Your task to perform on an android device: Open Google Maps and go to "Timeline" Image 0: 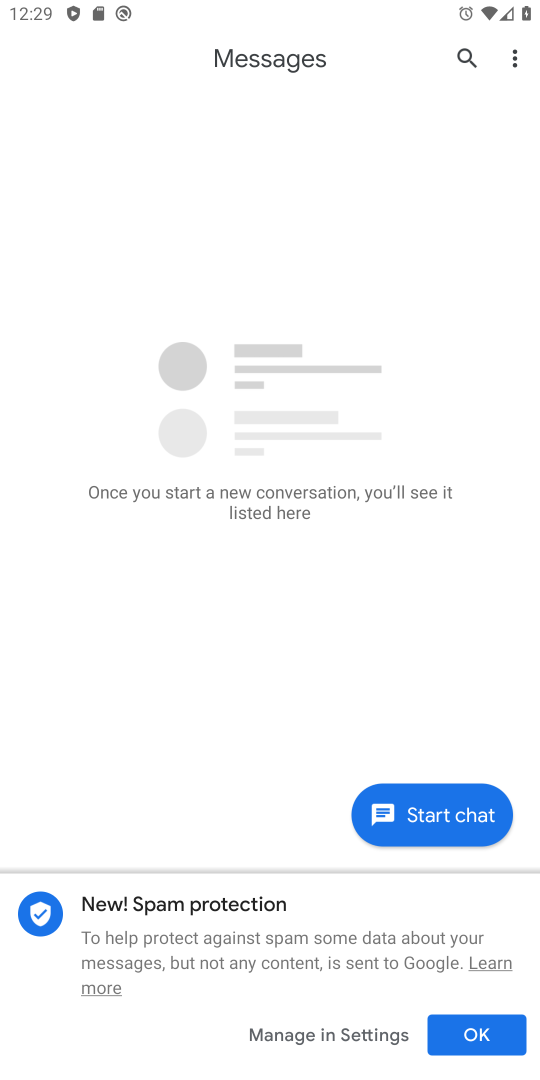
Step 0: press home button
Your task to perform on an android device: Open Google Maps and go to "Timeline" Image 1: 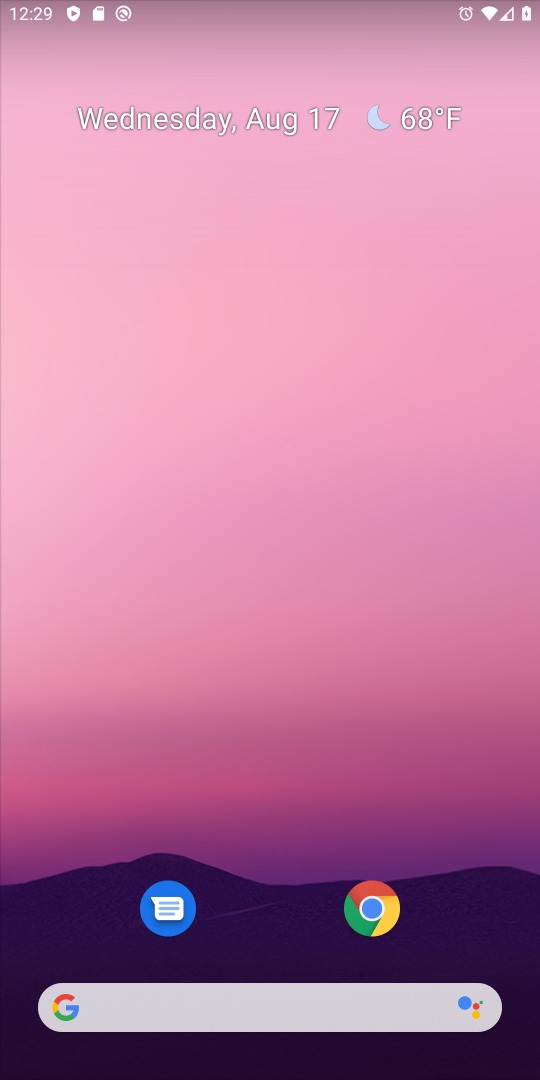
Step 1: drag from (249, 915) to (221, 348)
Your task to perform on an android device: Open Google Maps and go to "Timeline" Image 2: 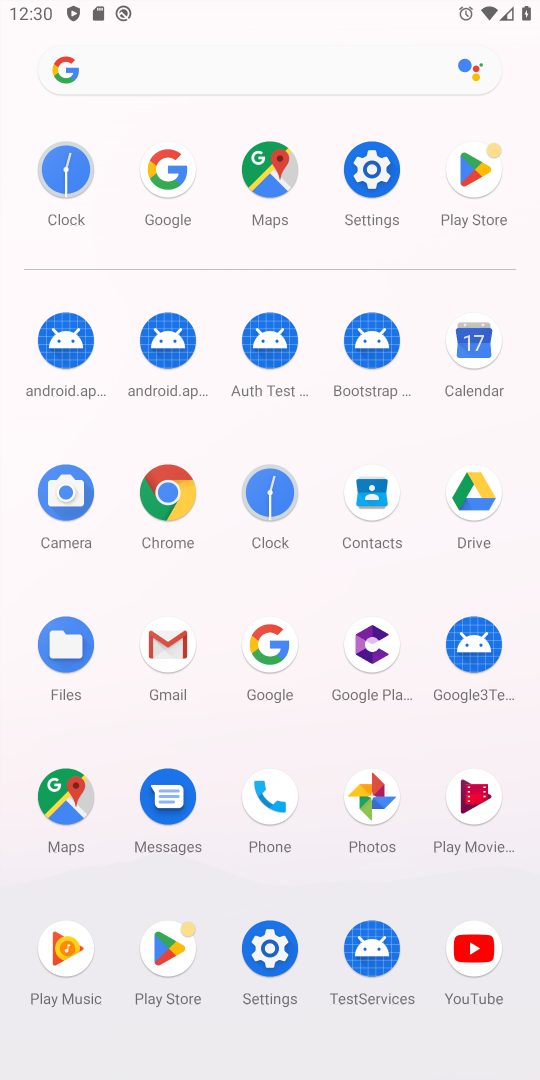
Step 2: click (255, 178)
Your task to perform on an android device: Open Google Maps and go to "Timeline" Image 3: 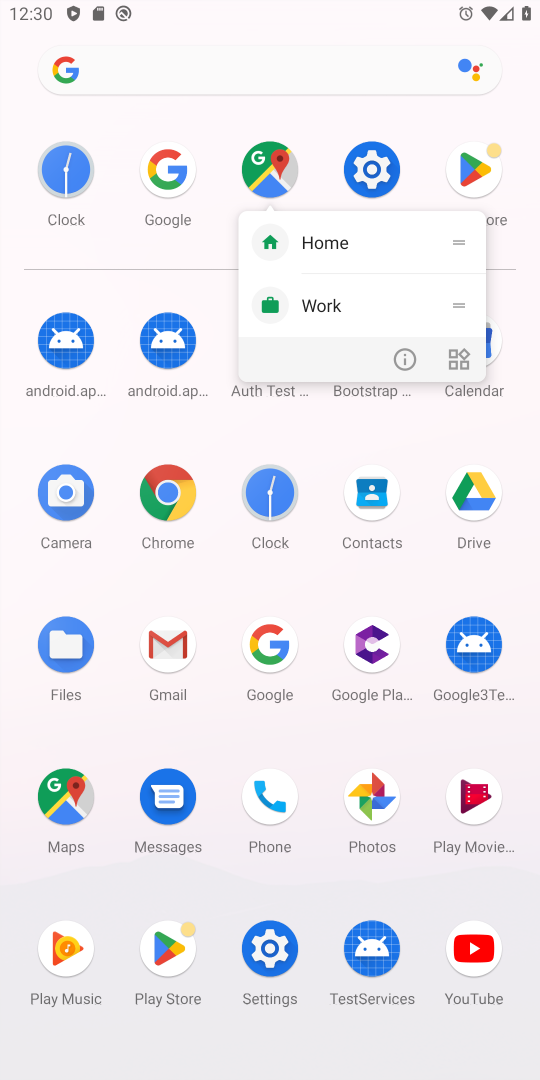
Step 3: click (264, 158)
Your task to perform on an android device: Open Google Maps and go to "Timeline" Image 4: 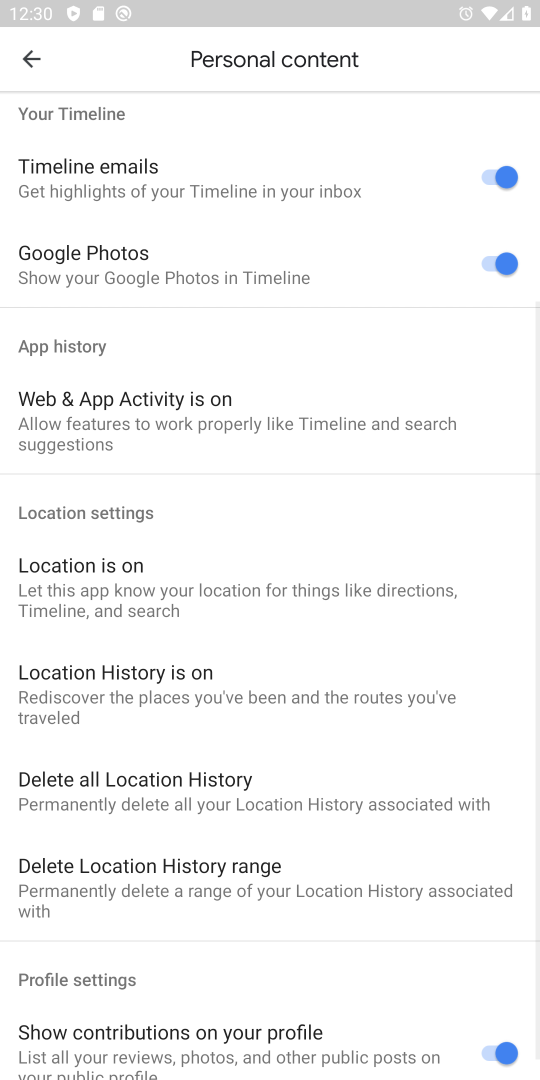
Step 4: click (24, 64)
Your task to perform on an android device: Open Google Maps and go to "Timeline" Image 5: 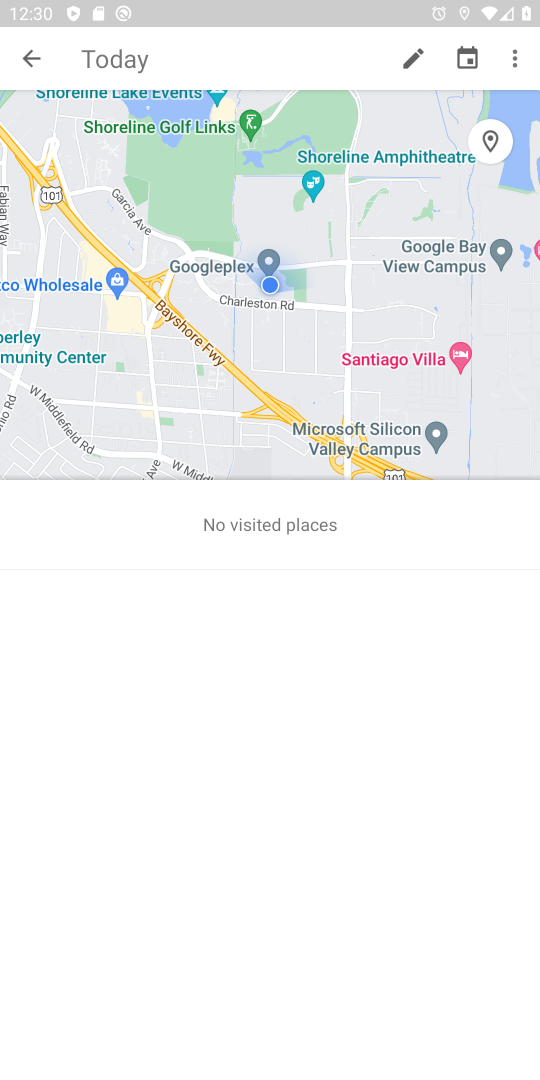
Step 5: click (14, 53)
Your task to perform on an android device: Open Google Maps and go to "Timeline" Image 6: 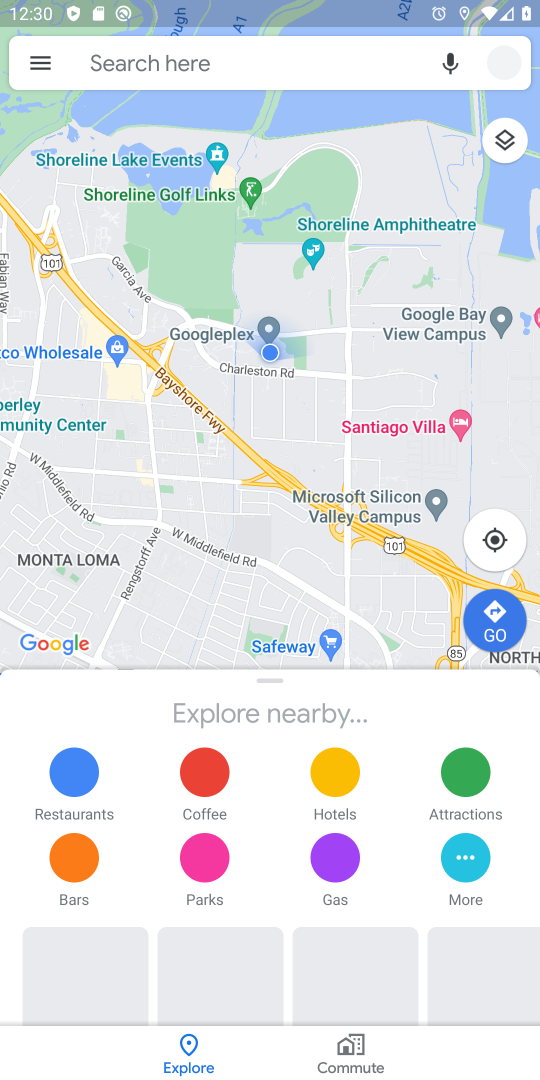
Step 6: click (43, 60)
Your task to perform on an android device: Open Google Maps and go to "Timeline" Image 7: 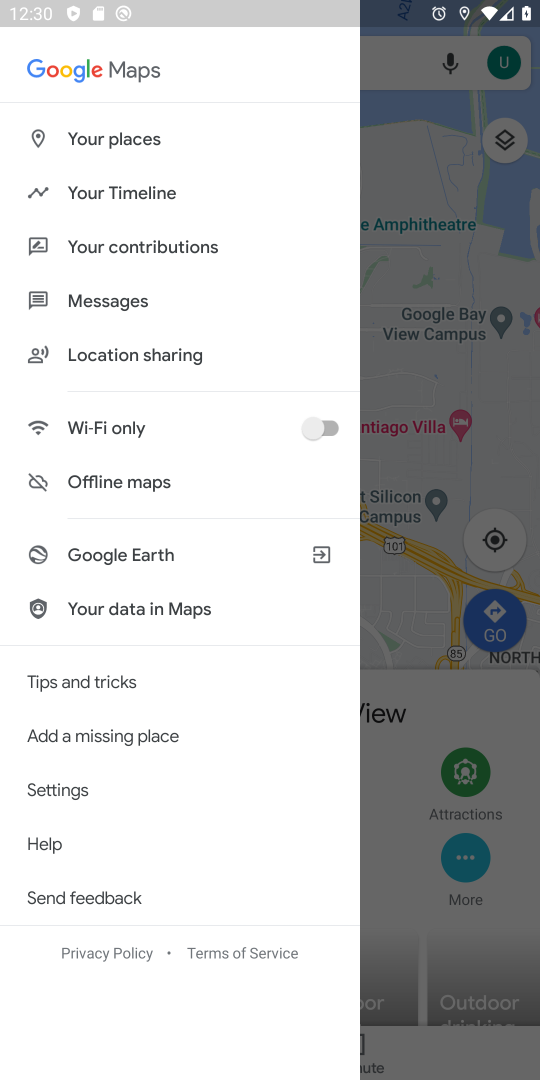
Step 7: click (141, 192)
Your task to perform on an android device: Open Google Maps and go to "Timeline" Image 8: 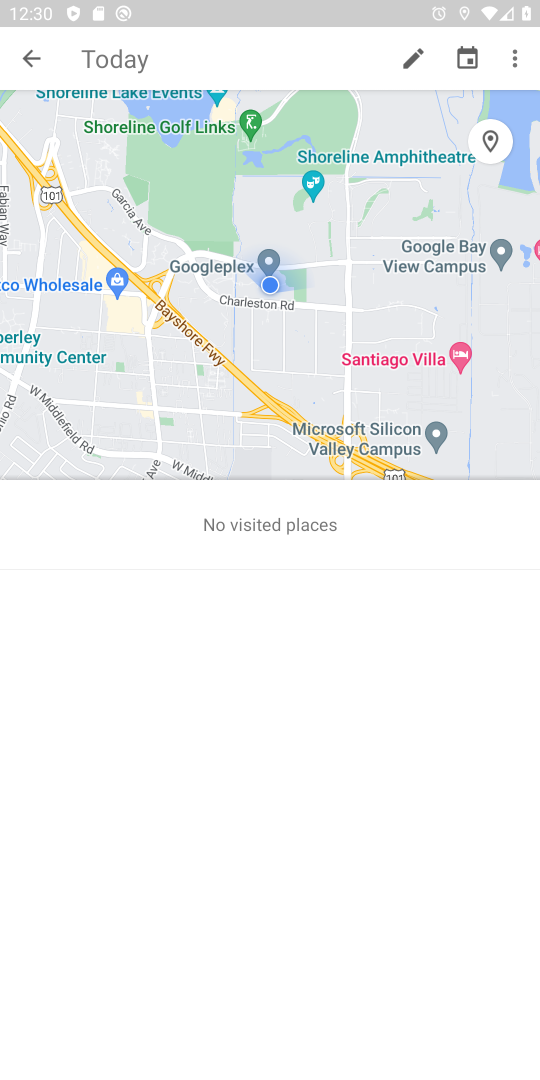
Step 8: task complete